Your task to perform on an android device: change the clock display to digital Image 0: 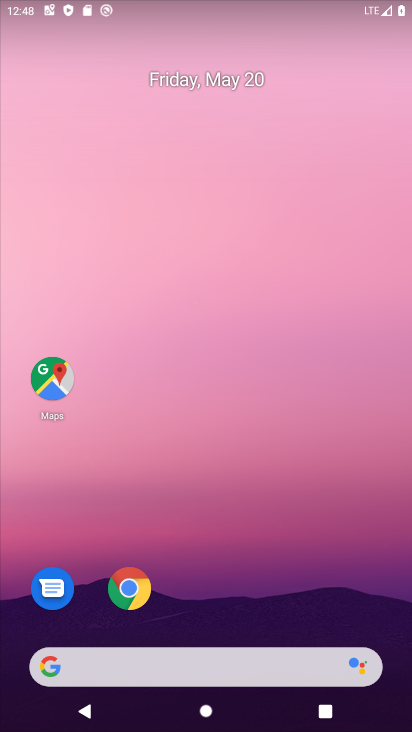
Step 0: drag from (385, 628) to (353, 117)
Your task to perform on an android device: change the clock display to digital Image 1: 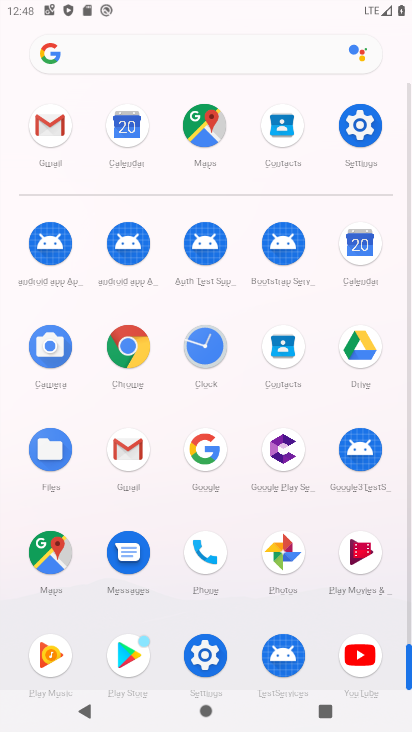
Step 1: click (410, 632)
Your task to perform on an android device: change the clock display to digital Image 2: 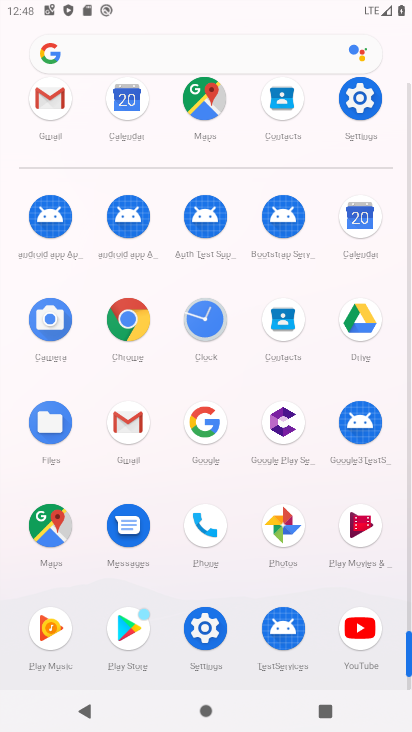
Step 2: click (200, 313)
Your task to perform on an android device: change the clock display to digital Image 3: 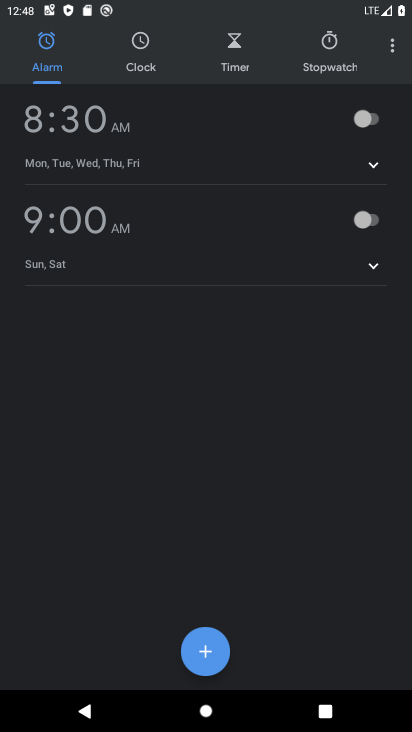
Step 3: click (390, 50)
Your task to perform on an android device: change the clock display to digital Image 4: 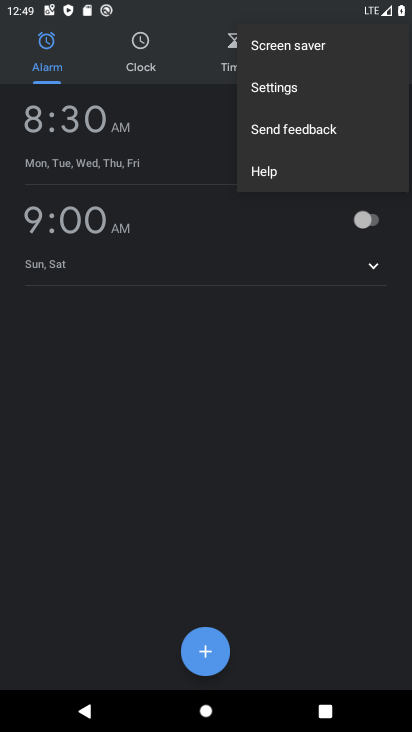
Step 4: click (286, 86)
Your task to perform on an android device: change the clock display to digital Image 5: 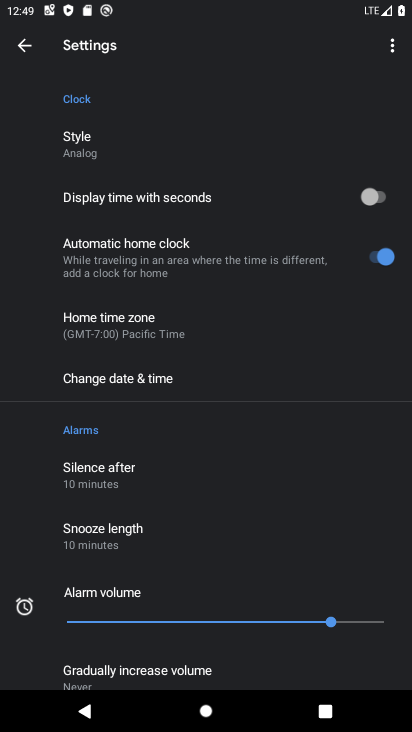
Step 5: click (83, 141)
Your task to perform on an android device: change the clock display to digital Image 6: 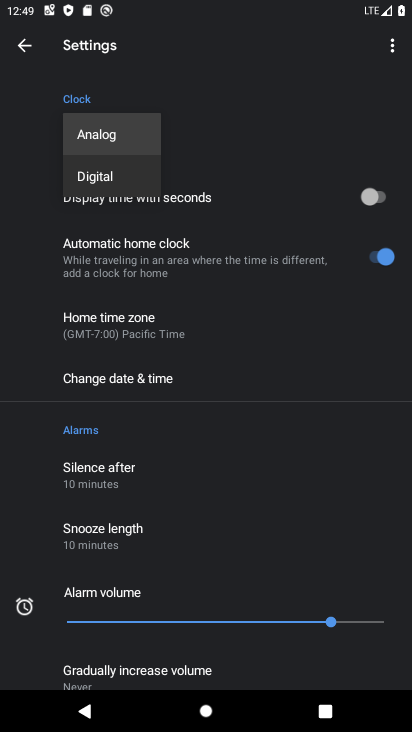
Step 6: click (111, 175)
Your task to perform on an android device: change the clock display to digital Image 7: 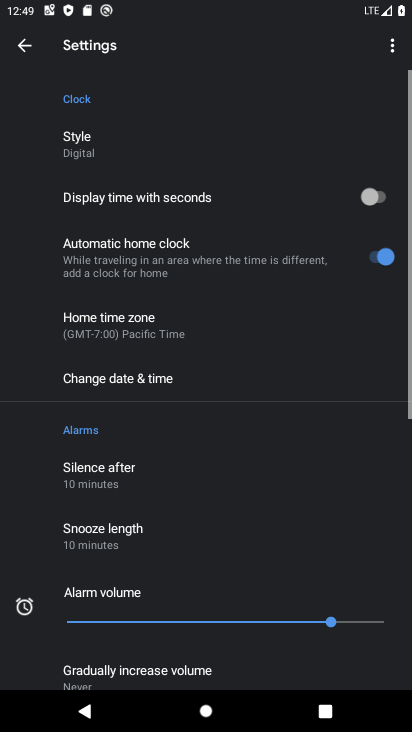
Step 7: task complete